Your task to perform on an android device: Open internet settings Image 0: 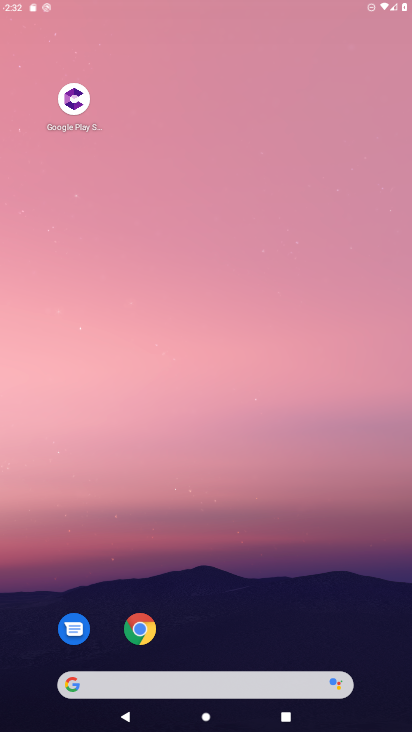
Step 0: drag from (299, 505) to (306, 65)
Your task to perform on an android device: Open internet settings Image 1: 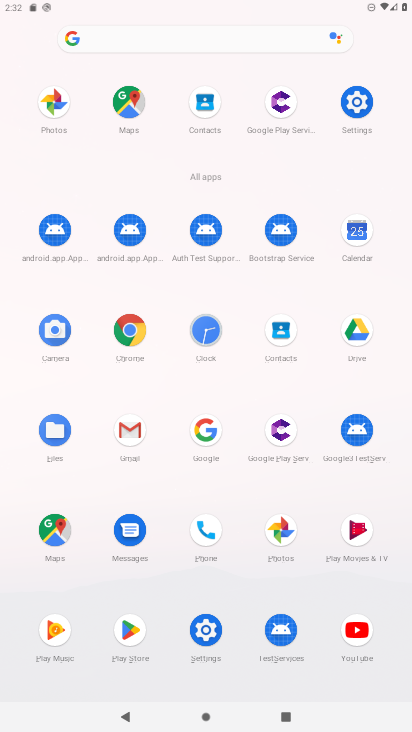
Step 1: click (196, 630)
Your task to perform on an android device: Open internet settings Image 2: 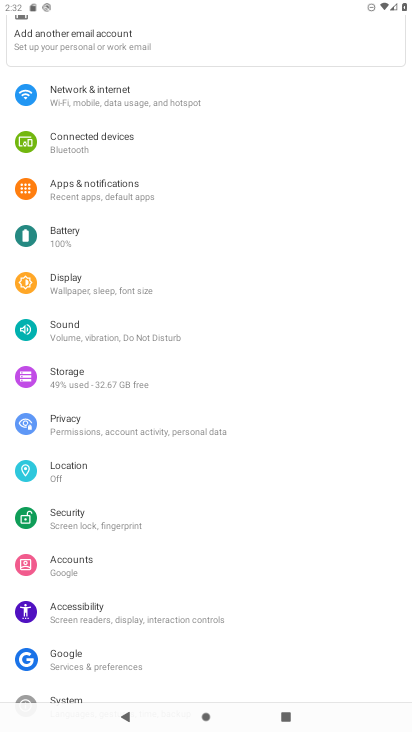
Step 2: click (83, 91)
Your task to perform on an android device: Open internet settings Image 3: 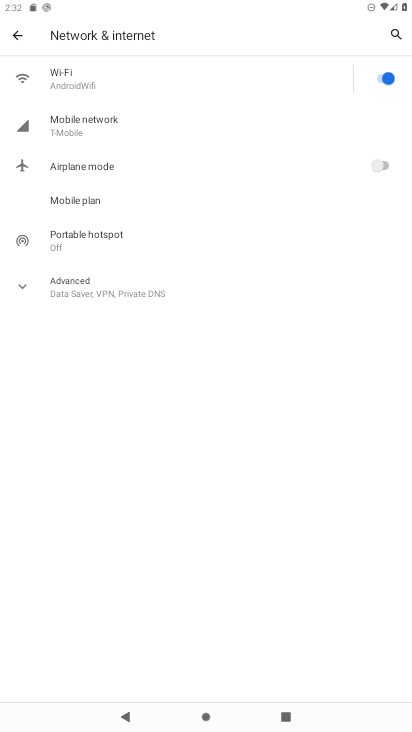
Step 3: task complete